Your task to perform on an android device: check out phone information Image 0: 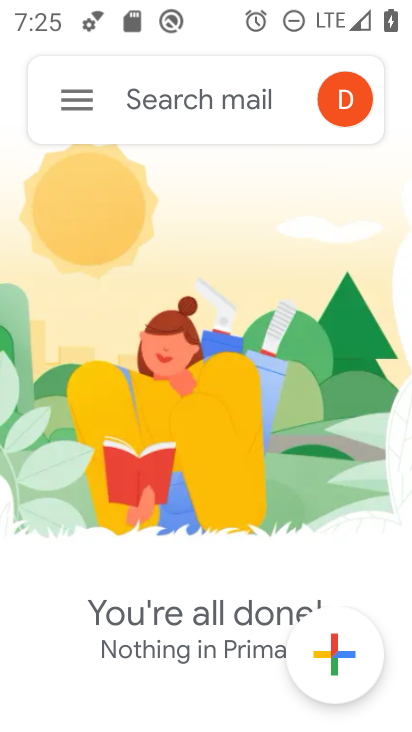
Step 0: press home button
Your task to perform on an android device: check out phone information Image 1: 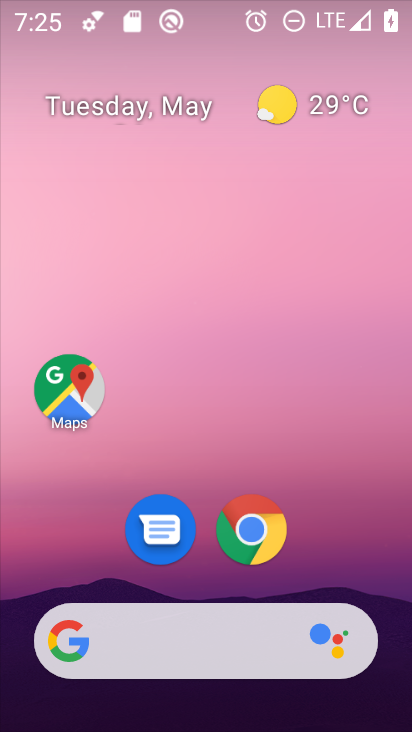
Step 1: drag from (393, 561) to (254, 42)
Your task to perform on an android device: check out phone information Image 2: 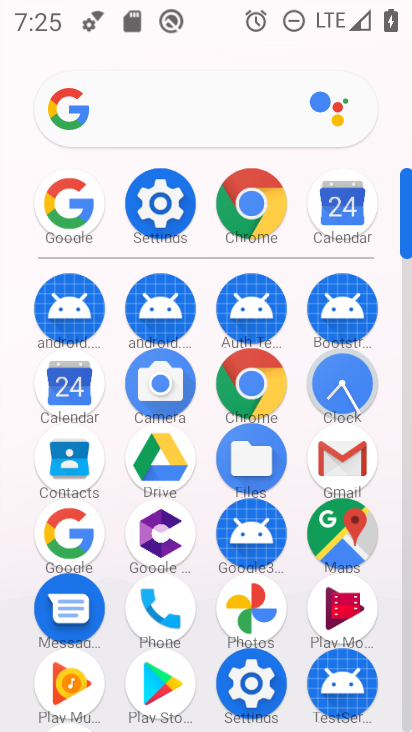
Step 2: click (258, 699)
Your task to perform on an android device: check out phone information Image 3: 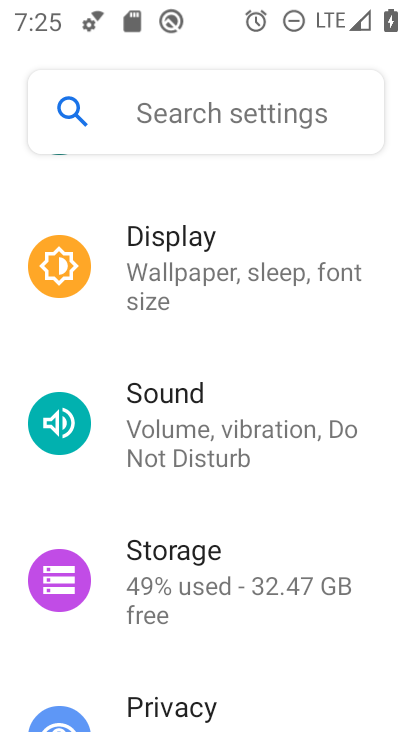
Step 3: drag from (188, 618) to (225, 80)
Your task to perform on an android device: check out phone information Image 4: 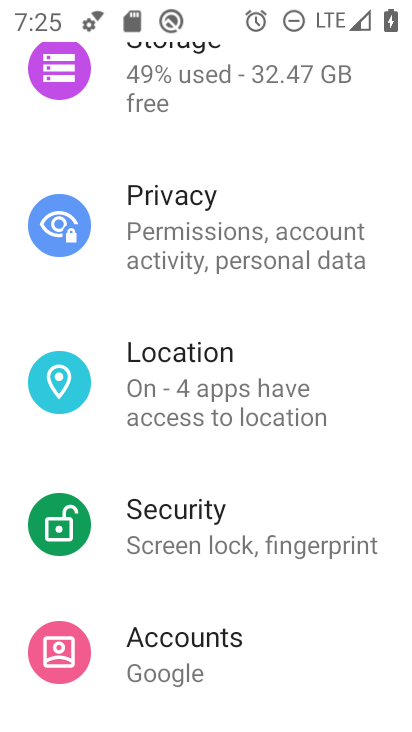
Step 4: drag from (168, 657) to (205, 44)
Your task to perform on an android device: check out phone information Image 5: 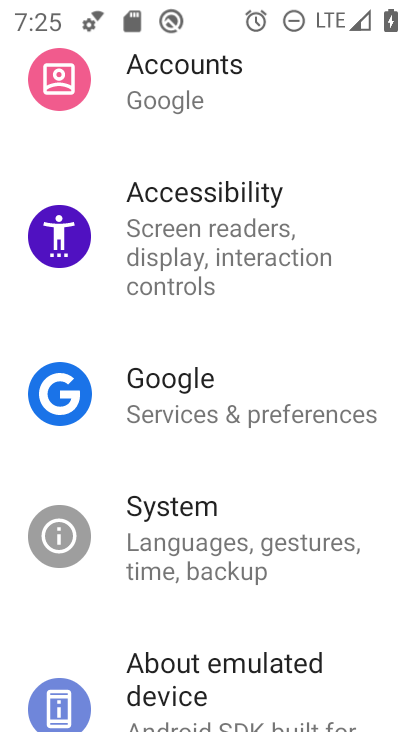
Step 5: click (253, 710)
Your task to perform on an android device: check out phone information Image 6: 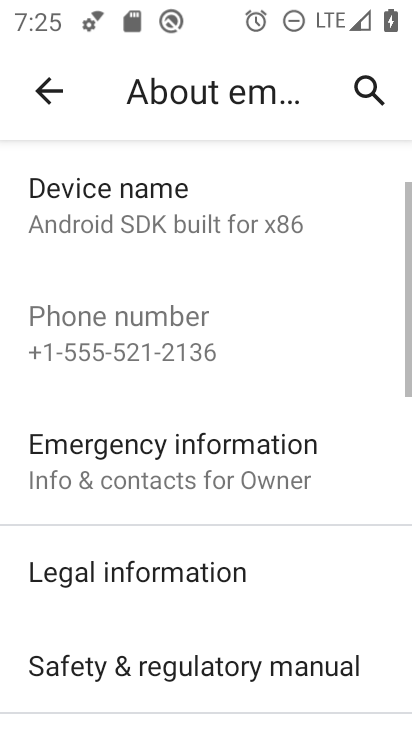
Step 6: task complete